Your task to perform on an android device: turn off airplane mode Image 0: 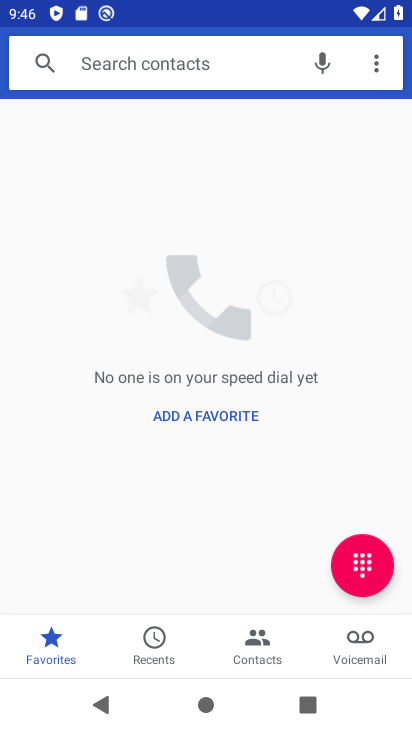
Step 0: press home button
Your task to perform on an android device: turn off airplane mode Image 1: 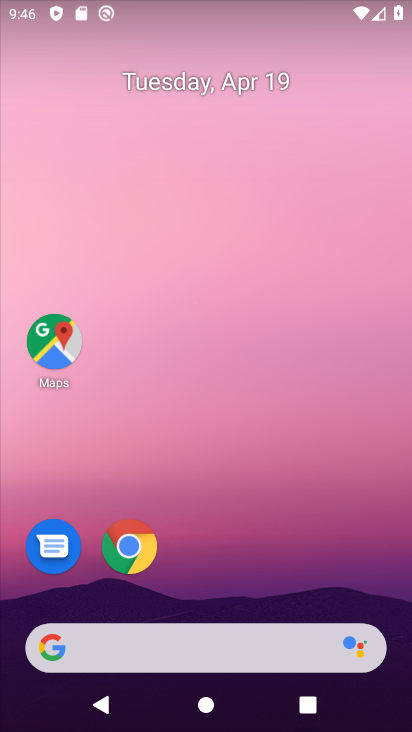
Step 1: drag from (235, 545) to (200, 134)
Your task to perform on an android device: turn off airplane mode Image 2: 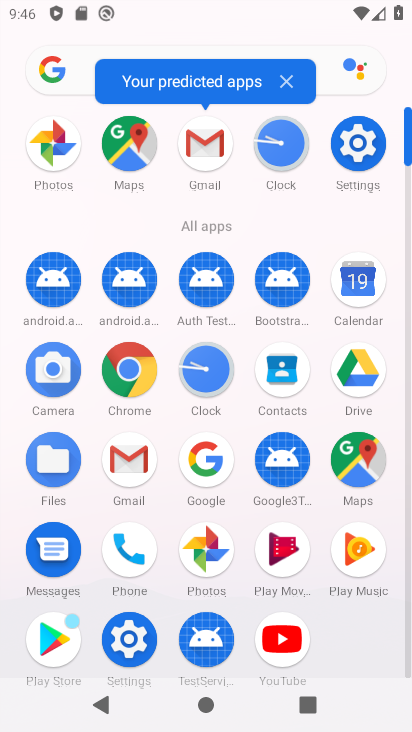
Step 2: click (358, 145)
Your task to perform on an android device: turn off airplane mode Image 3: 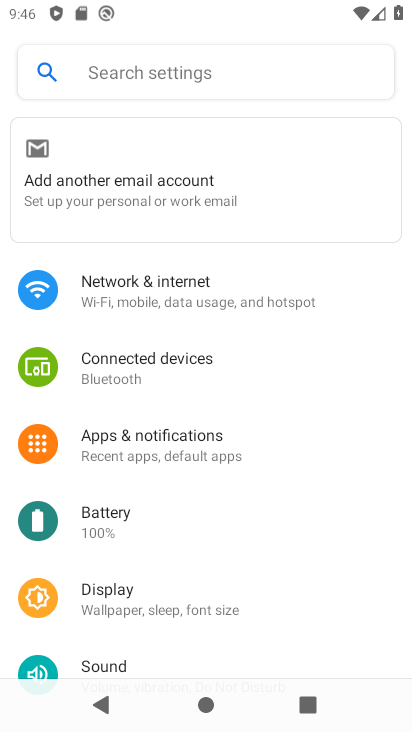
Step 3: click (178, 296)
Your task to perform on an android device: turn off airplane mode Image 4: 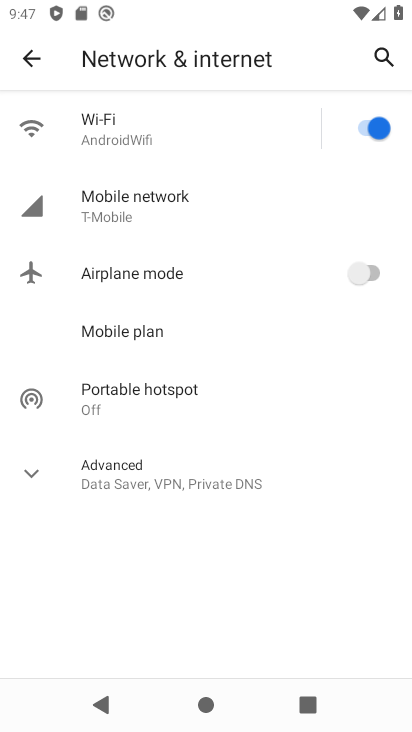
Step 4: task complete